Your task to perform on an android device: star an email in the gmail app Image 0: 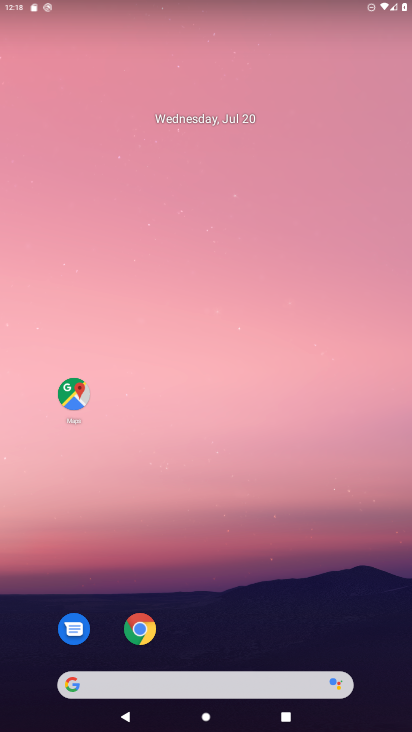
Step 0: drag from (231, 576) to (326, 167)
Your task to perform on an android device: star an email in the gmail app Image 1: 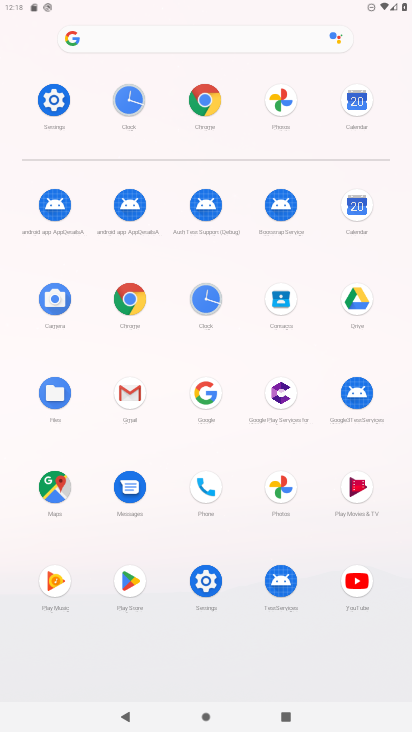
Step 1: click (144, 388)
Your task to perform on an android device: star an email in the gmail app Image 2: 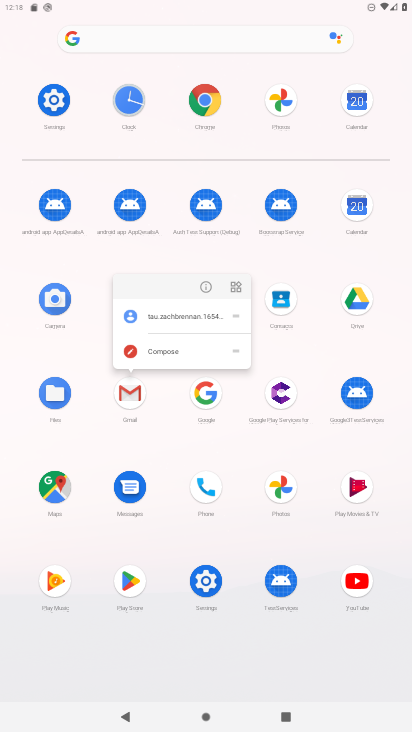
Step 2: click (207, 280)
Your task to perform on an android device: star an email in the gmail app Image 3: 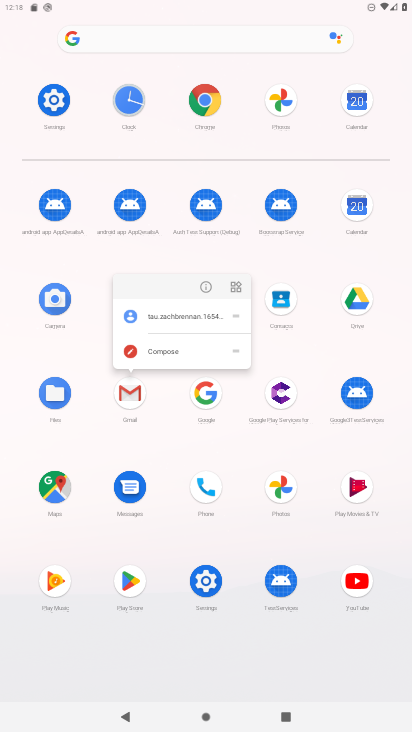
Step 3: click (207, 280)
Your task to perform on an android device: star an email in the gmail app Image 4: 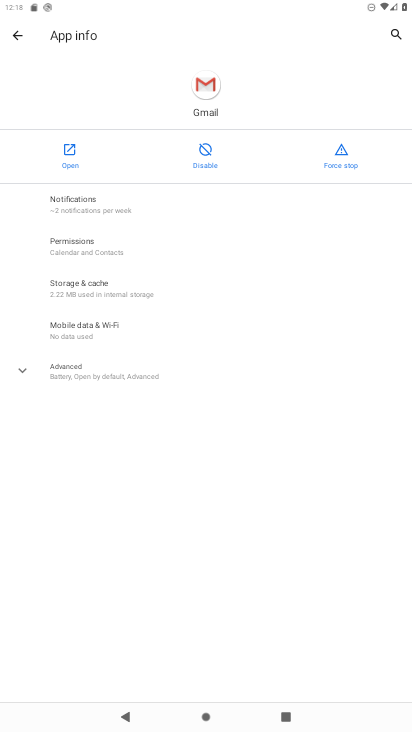
Step 4: click (65, 157)
Your task to perform on an android device: star an email in the gmail app Image 5: 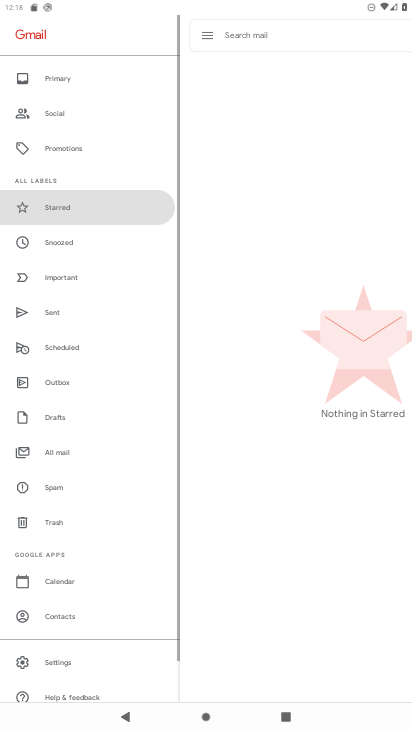
Step 5: click (322, 175)
Your task to perform on an android device: star an email in the gmail app Image 6: 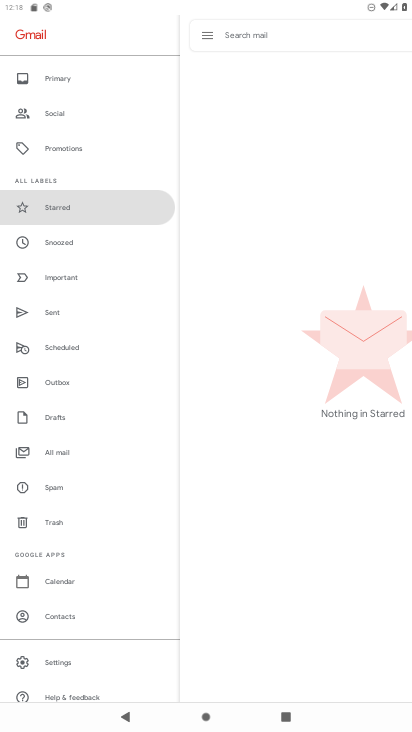
Step 6: task complete